Your task to perform on an android device: change keyboard looks Image 0: 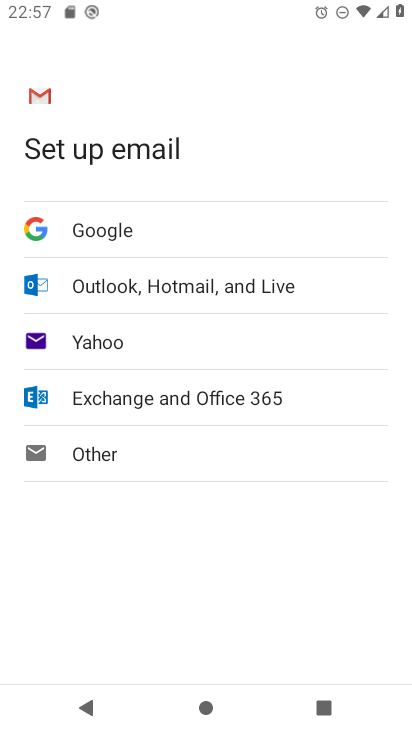
Step 0: press home button
Your task to perform on an android device: change keyboard looks Image 1: 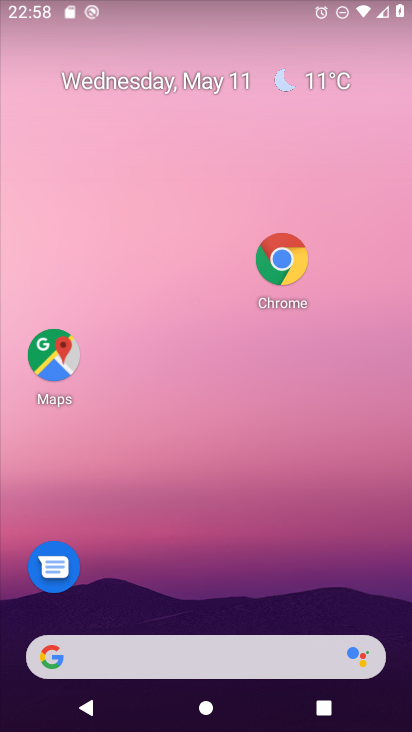
Step 1: drag from (156, 668) to (349, 33)
Your task to perform on an android device: change keyboard looks Image 2: 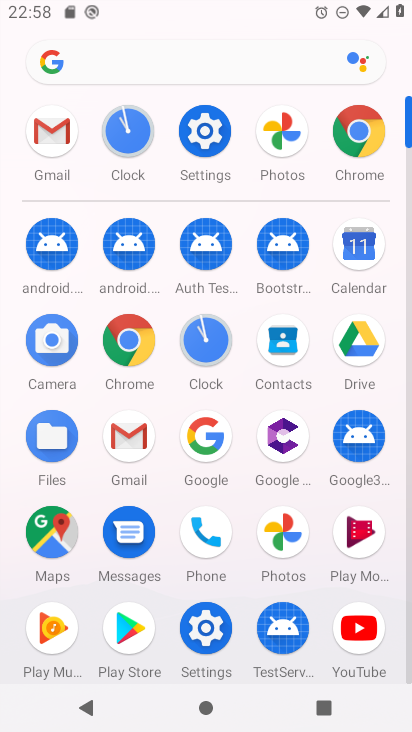
Step 2: click (212, 626)
Your task to perform on an android device: change keyboard looks Image 3: 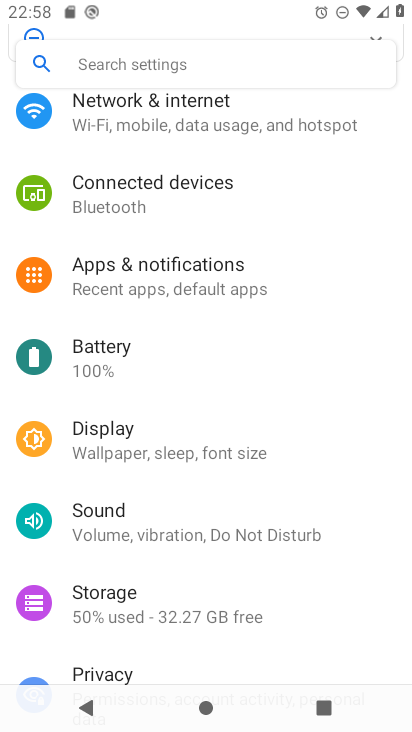
Step 3: drag from (201, 660) to (320, 127)
Your task to perform on an android device: change keyboard looks Image 4: 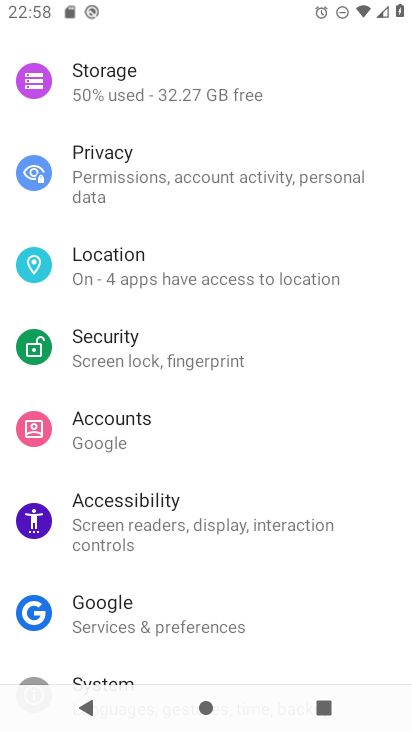
Step 4: drag from (166, 578) to (310, 253)
Your task to perform on an android device: change keyboard looks Image 5: 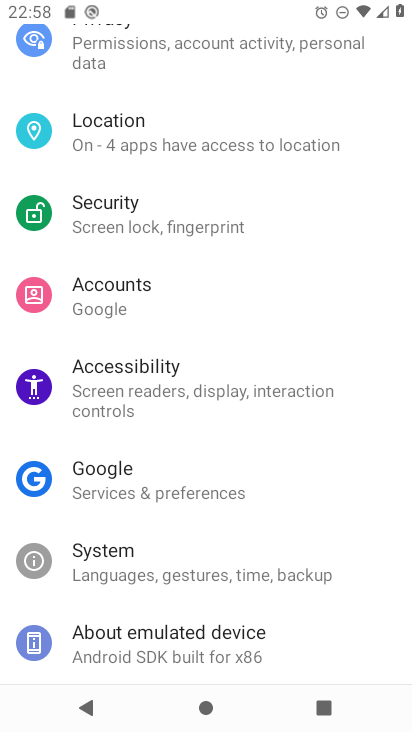
Step 5: click (148, 574)
Your task to perform on an android device: change keyboard looks Image 6: 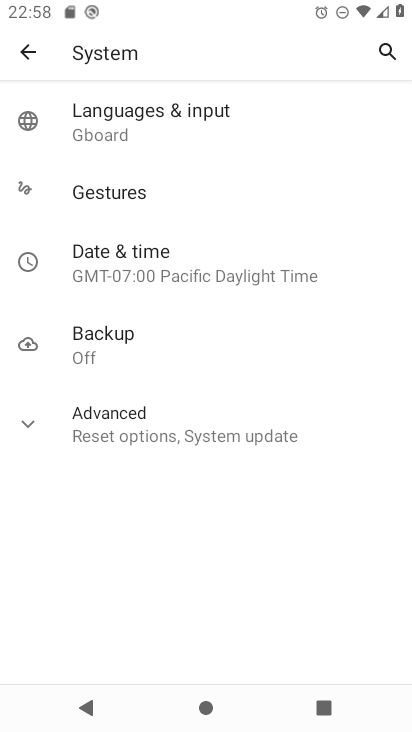
Step 6: click (147, 111)
Your task to perform on an android device: change keyboard looks Image 7: 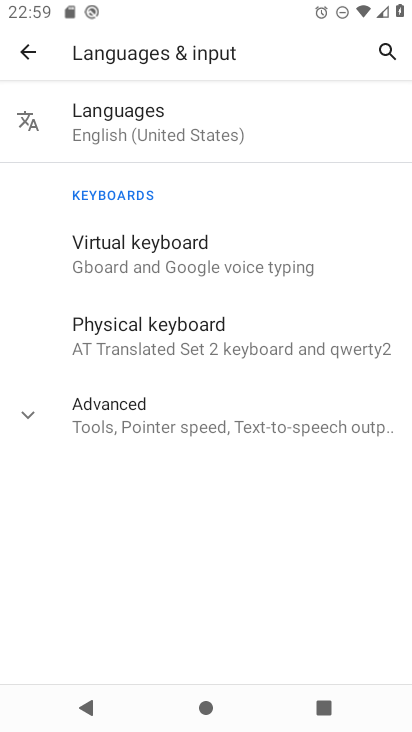
Step 7: click (145, 246)
Your task to perform on an android device: change keyboard looks Image 8: 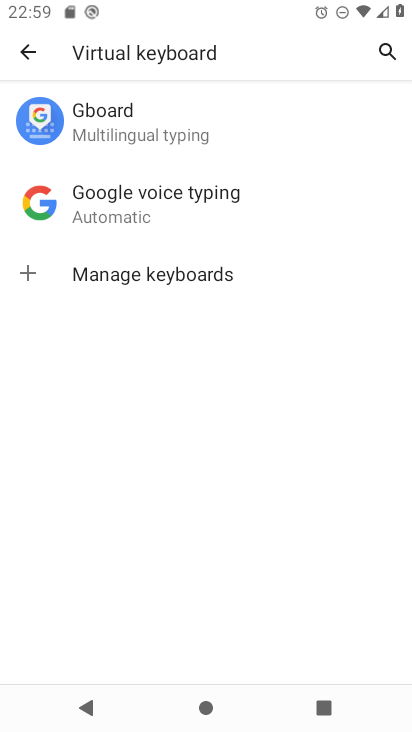
Step 8: click (137, 139)
Your task to perform on an android device: change keyboard looks Image 9: 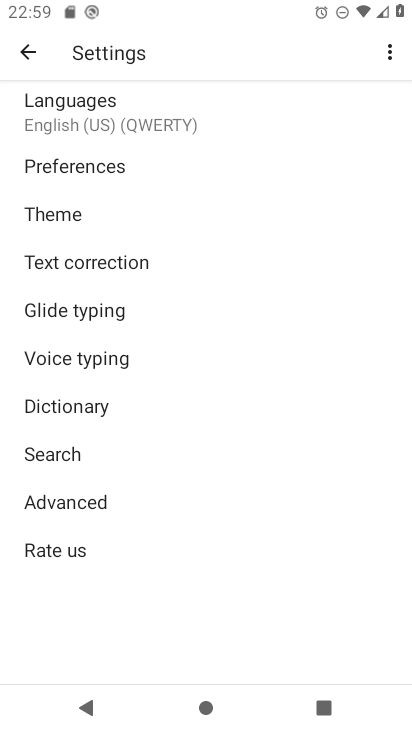
Step 9: click (73, 217)
Your task to perform on an android device: change keyboard looks Image 10: 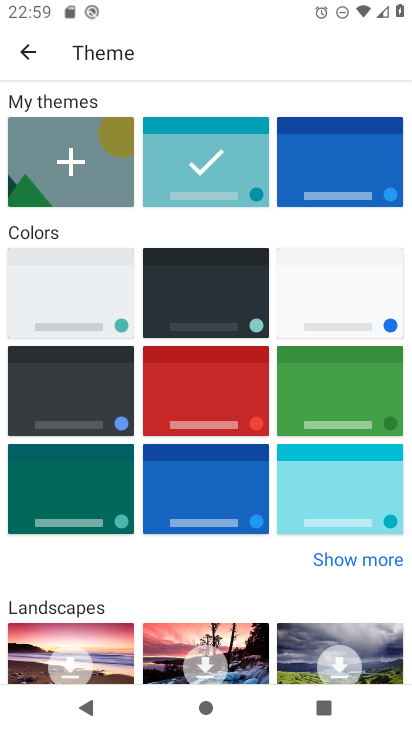
Step 10: click (82, 489)
Your task to perform on an android device: change keyboard looks Image 11: 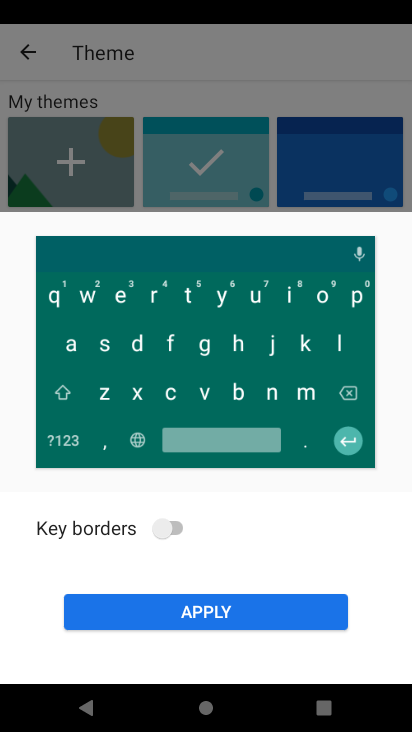
Step 11: click (180, 607)
Your task to perform on an android device: change keyboard looks Image 12: 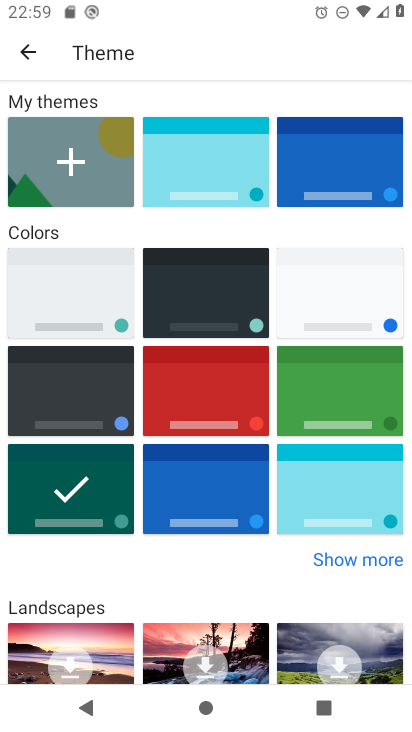
Step 12: task complete